Your task to perform on an android device: Add macbook pro 15 inch to the cart on target.com, then select checkout. Image 0: 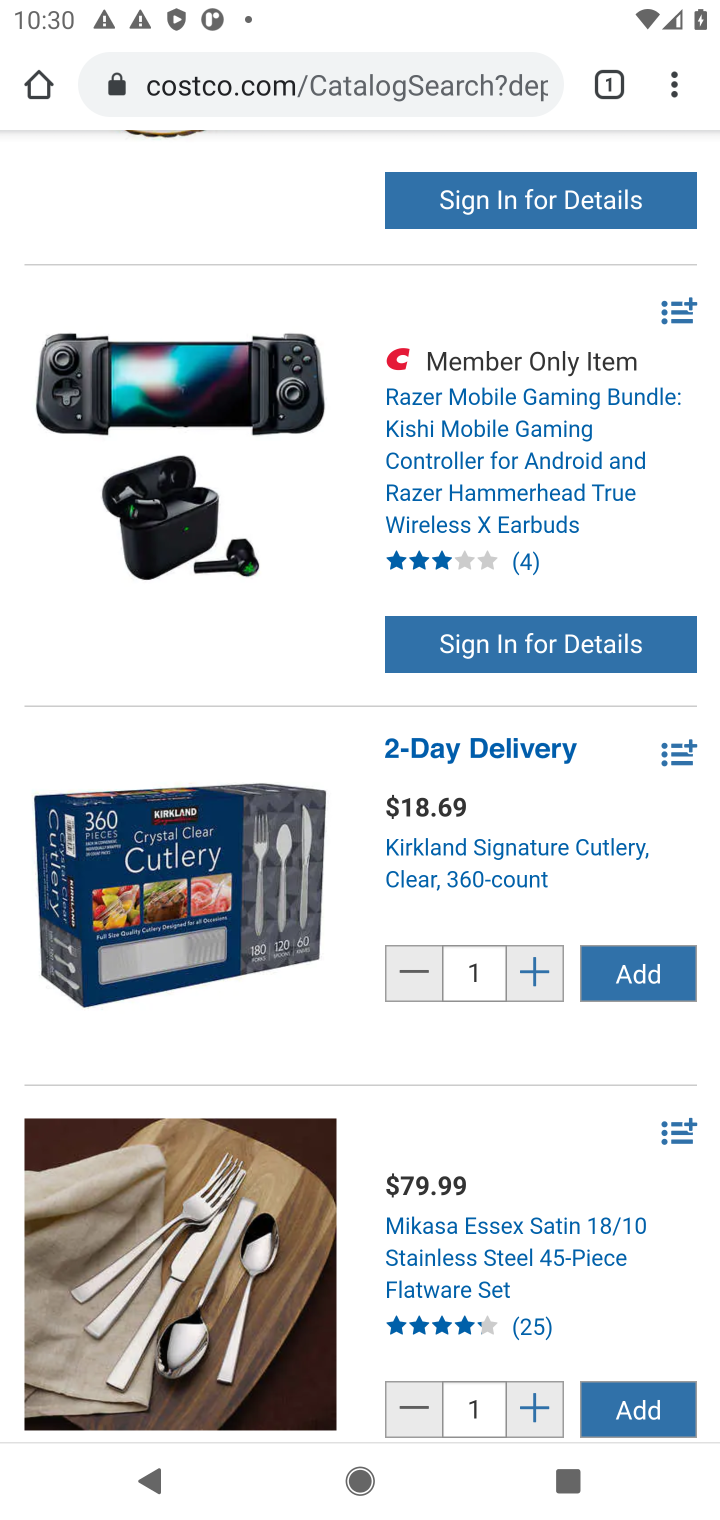
Step 0: press home button
Your task to perform on an android device: Add macbook pro 15 inch to the cart on target.com, then select checkout. Image 1: 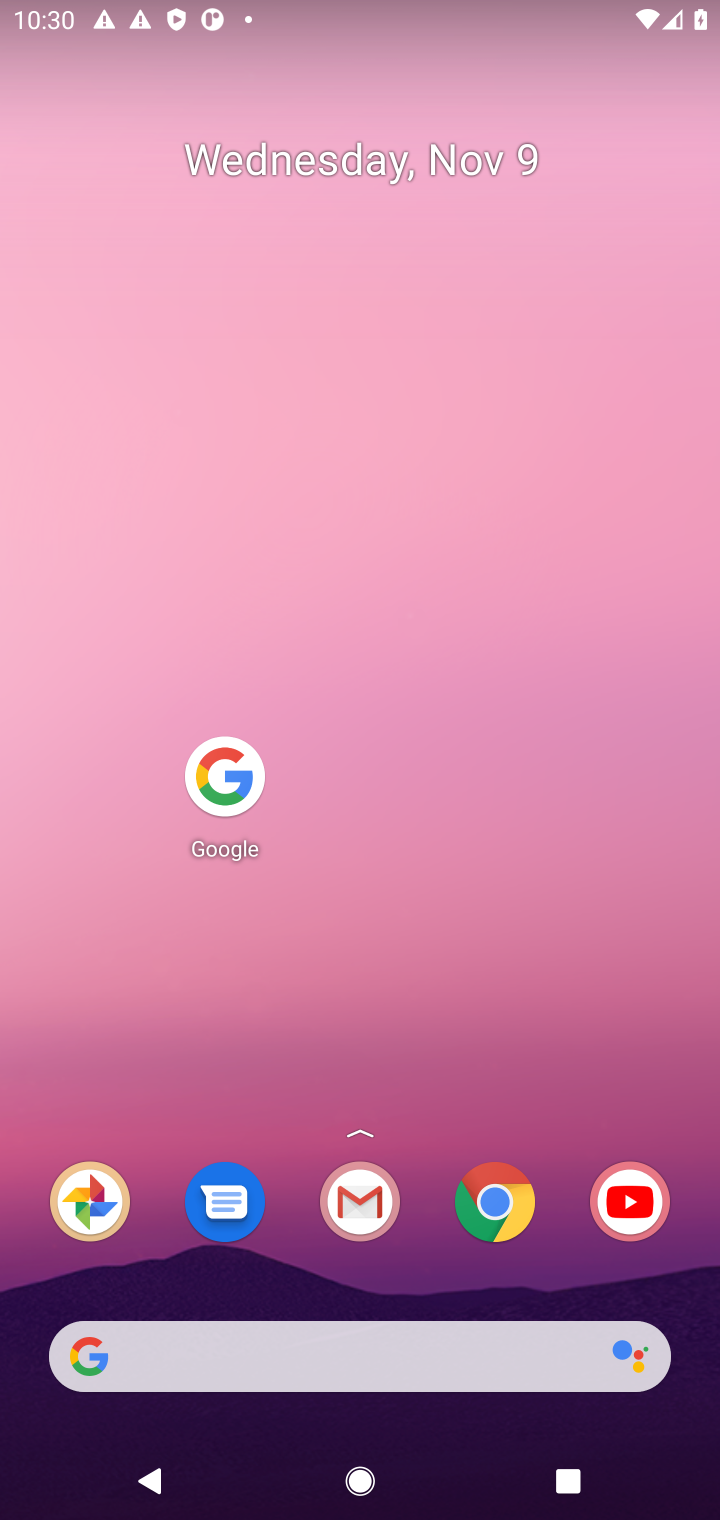
Step 1: click (229, 759)
Your task to perform on an android device: Add macbook pro 15 inch to the cart on target.com, then select checkout. Image 2: 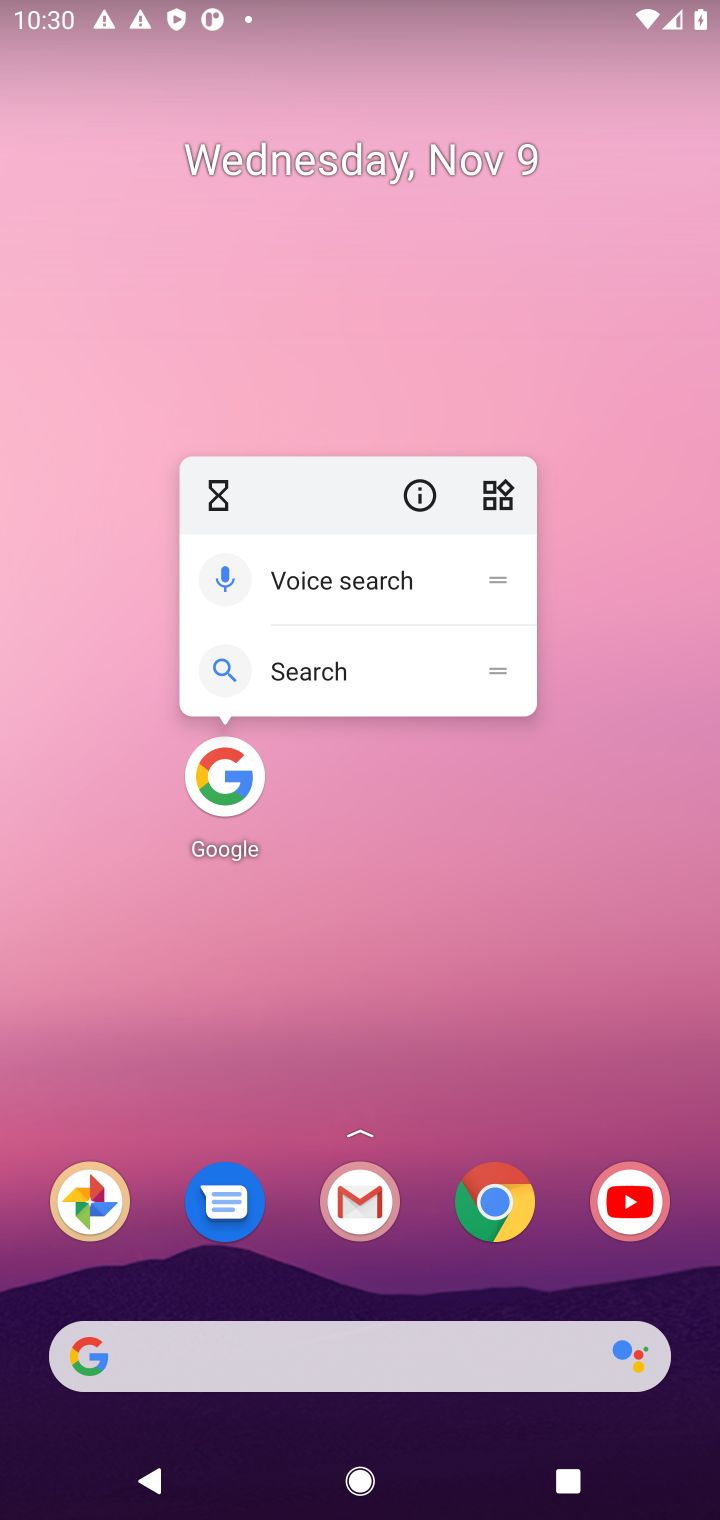
Step 2: click (221, 781)
Your task to perform on an android device: Add macbook pro 15 inch to the cart on target.com, then select checkout. Image 3: 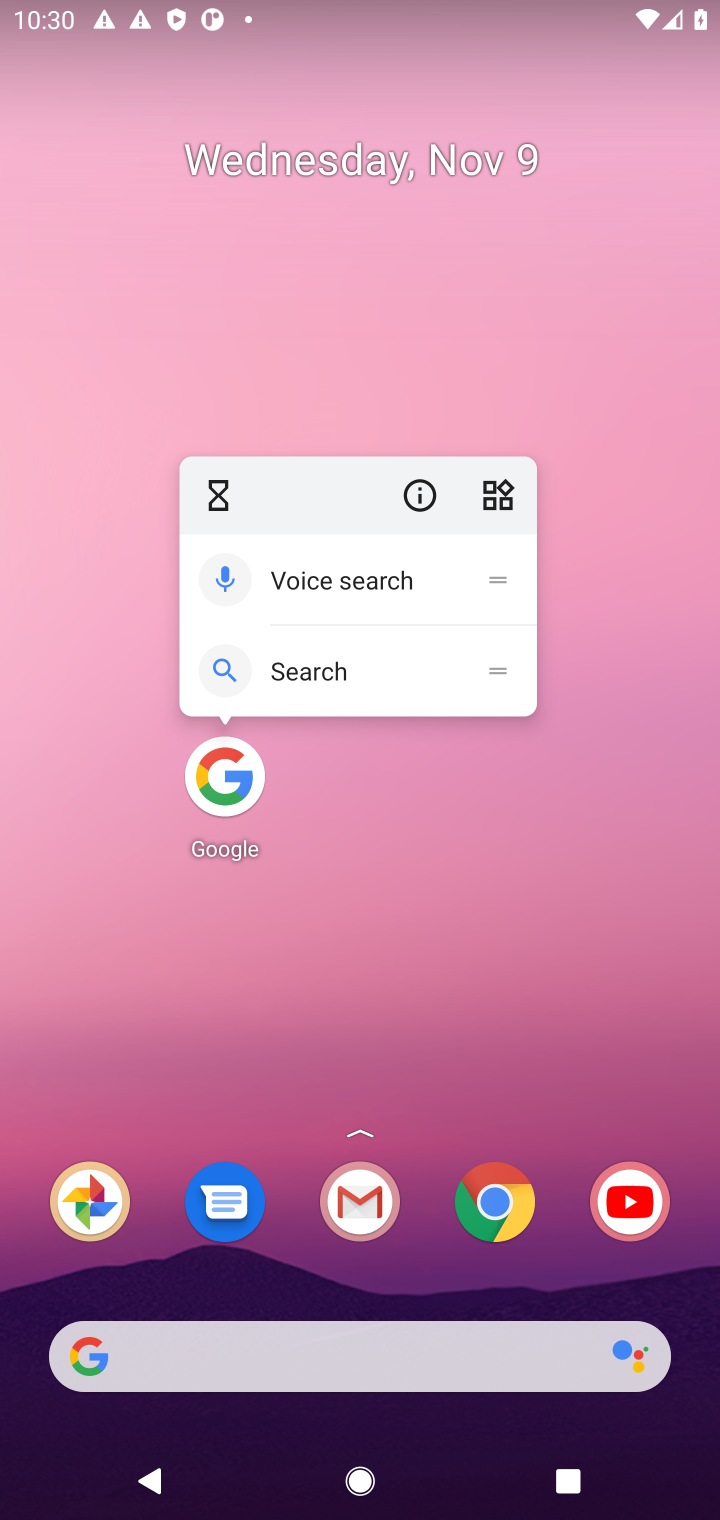
Step 3: click (227, 751)
Your task to perform on an android device: Add macbook pro 15 inch to the cart on target.com, then select checkout. Image 4: 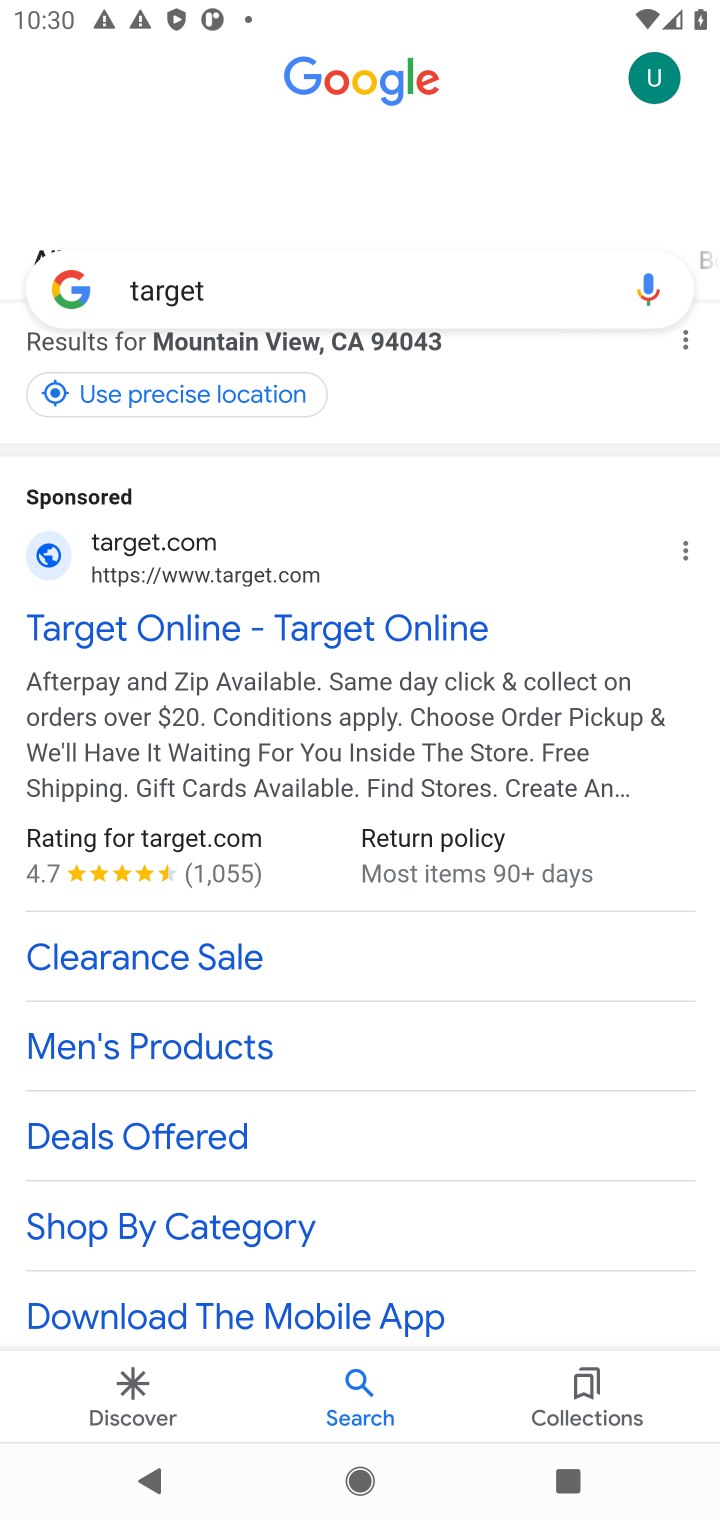
Step 4: click (184, 625)
Your task to perform on an android device: Add macbook pro 15 inch to the cart on target.com, then select checkout. Image 5: 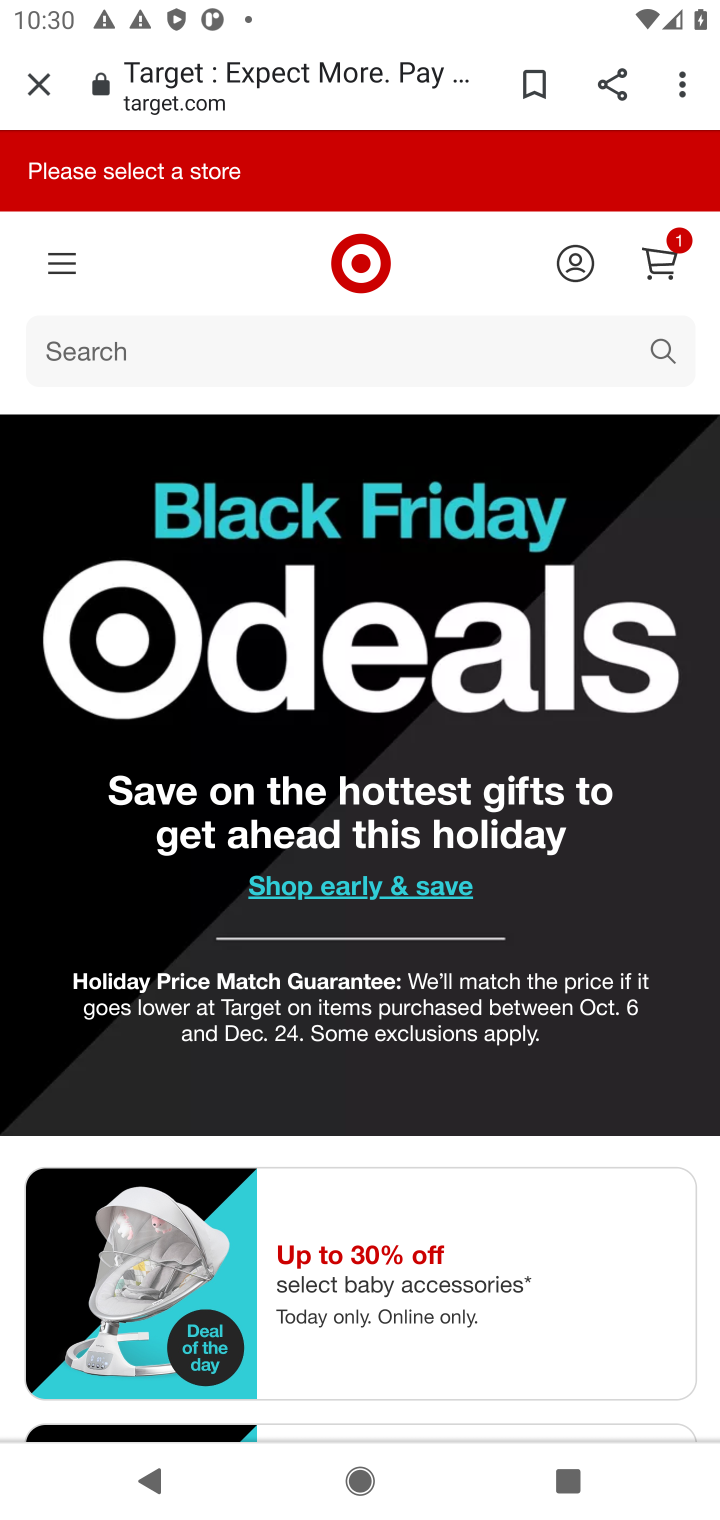
Step 5: click (199, 335)
Your task to perform on an android device: Add macbook pro 15 inch to the cart on target.com, then select checkout. Image 6: 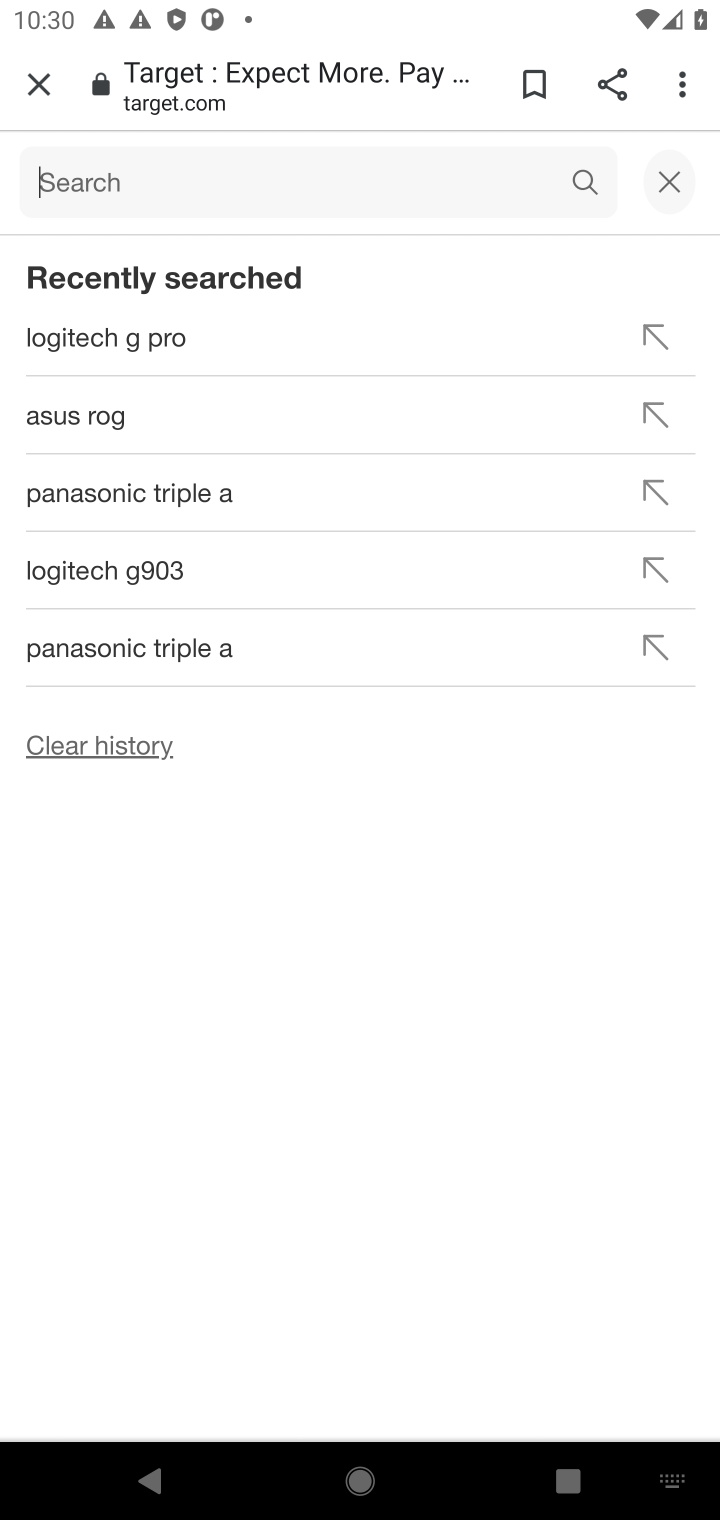
Step 6: type "macbook pro 15 inch"
Your task to perform on an android device: Add macbook pro 15 inch to the cart on target.com, then select checkout. Image 7: 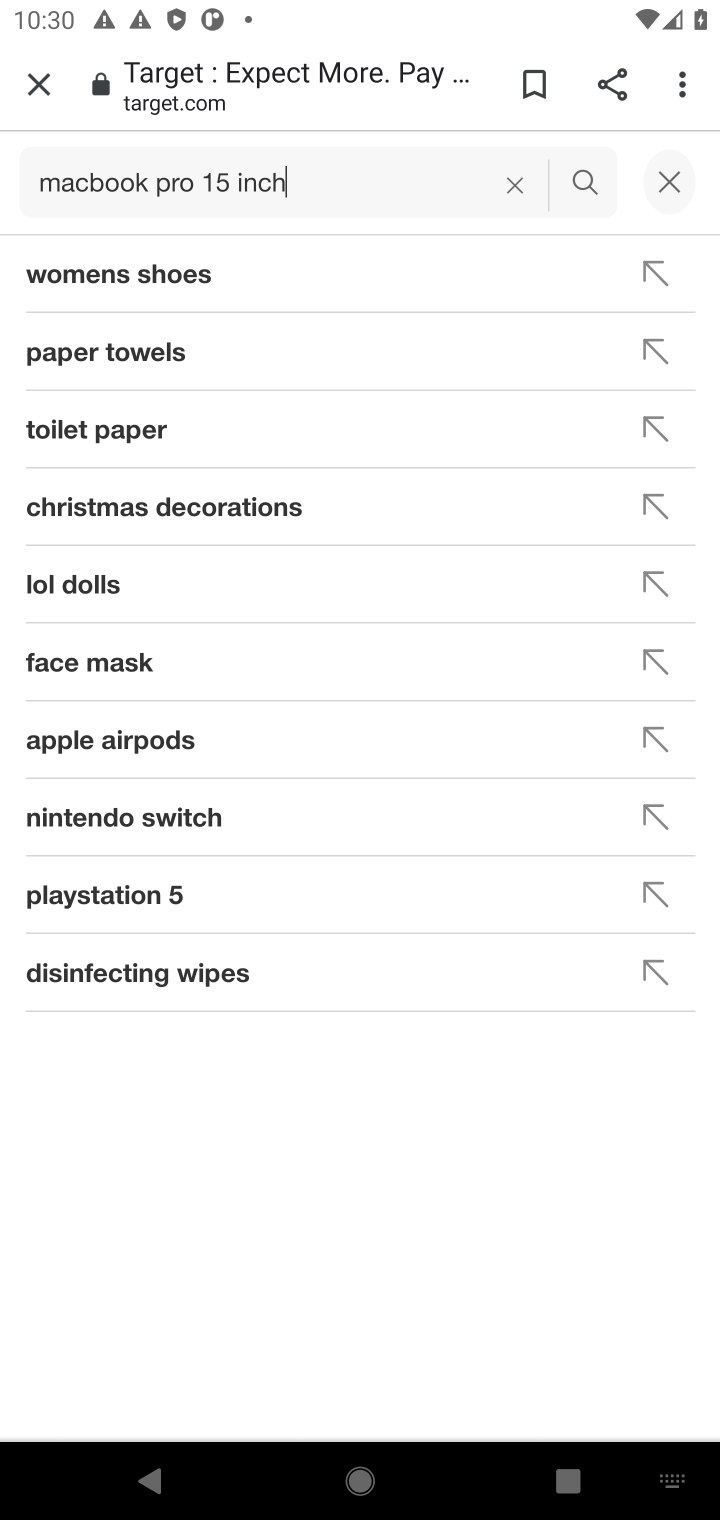
Step 7: press enter
Your task to perform on an android device: Add macbook pro 15 inch to the cart on target.com, then select checkout. Image 8: 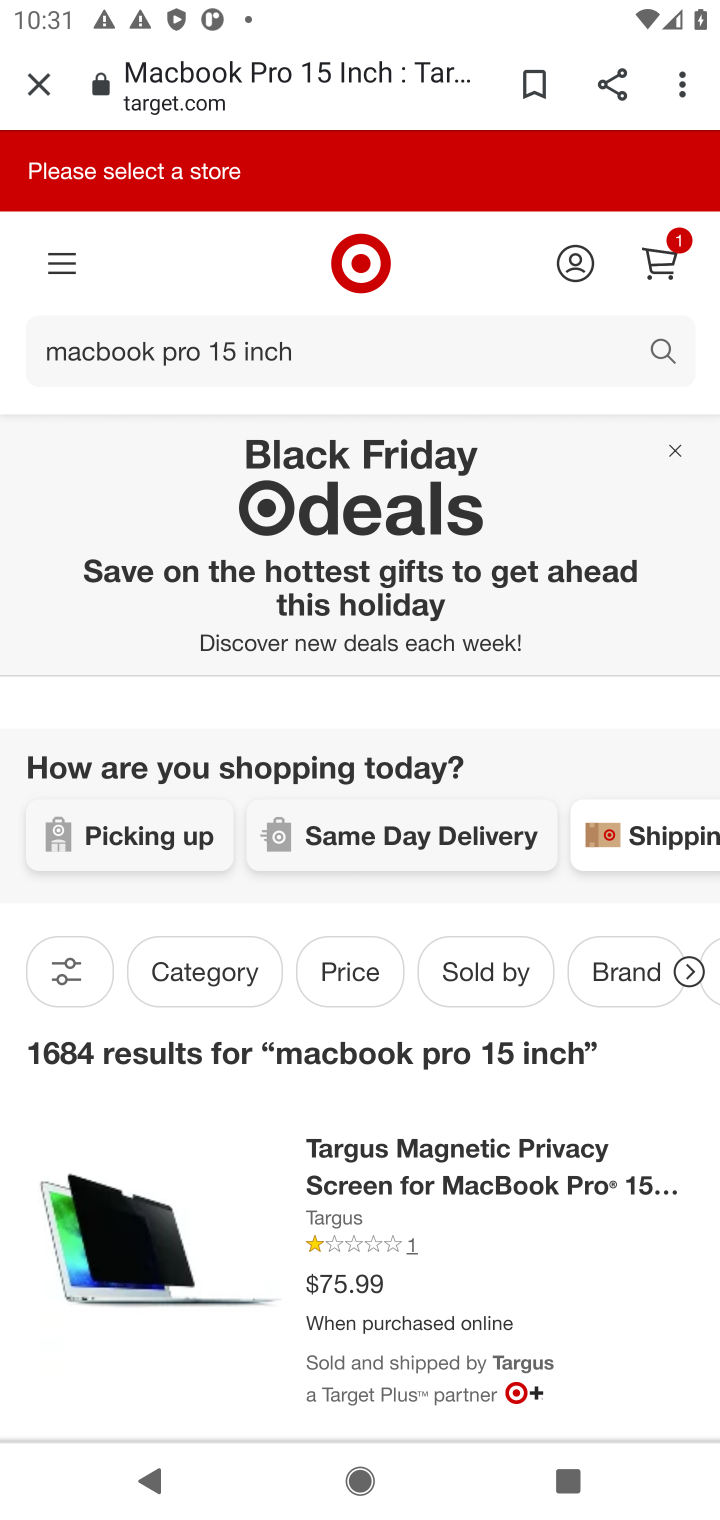
Step 8: drag from (262, 1246) to (481, 800)
Your task to perform on an android device: Add macbook pro 15 inch to the cart on target.com, then select checkout. Image 9: 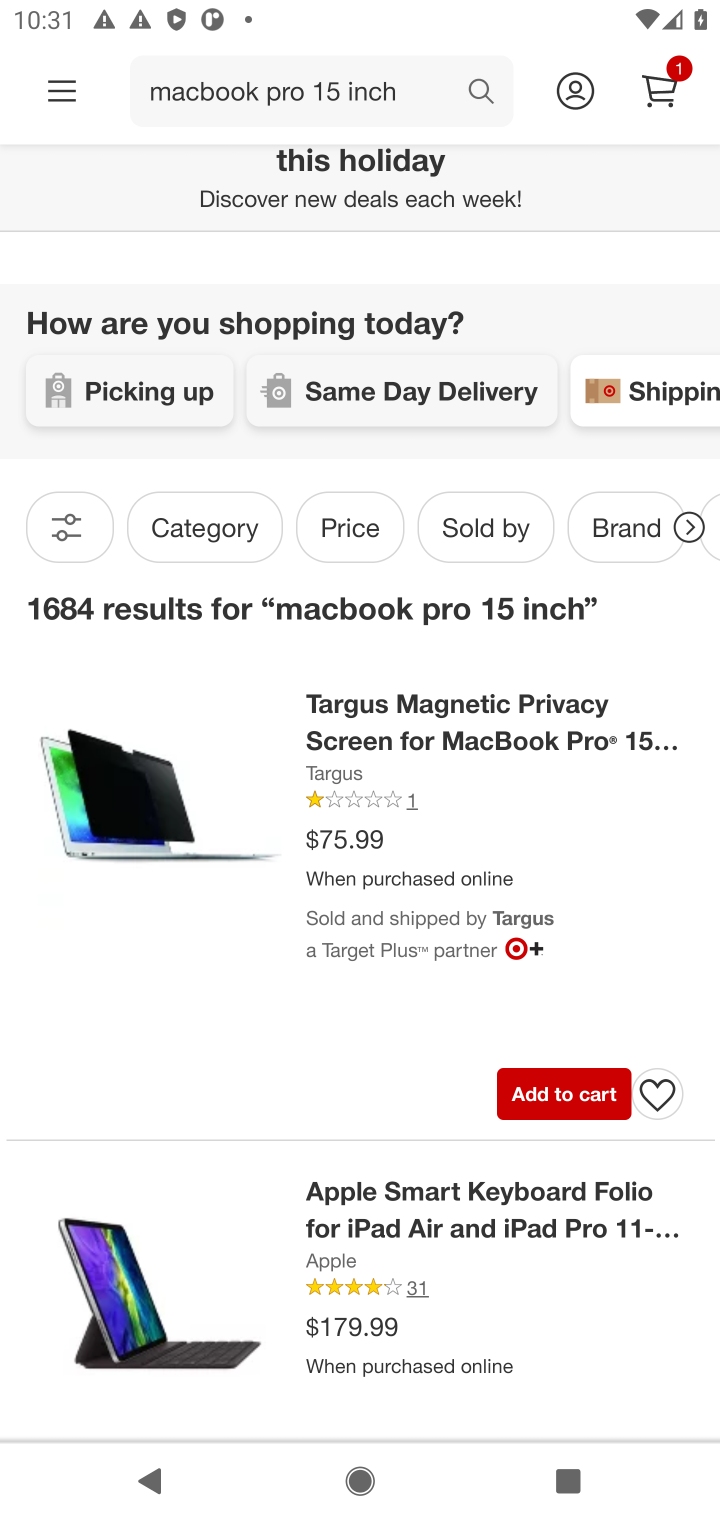
Step 9: click (408, 742)
Your task to perform on an android device: Add macbook pro 15 inch to the cart on target.com, then select checkout. Image 10: 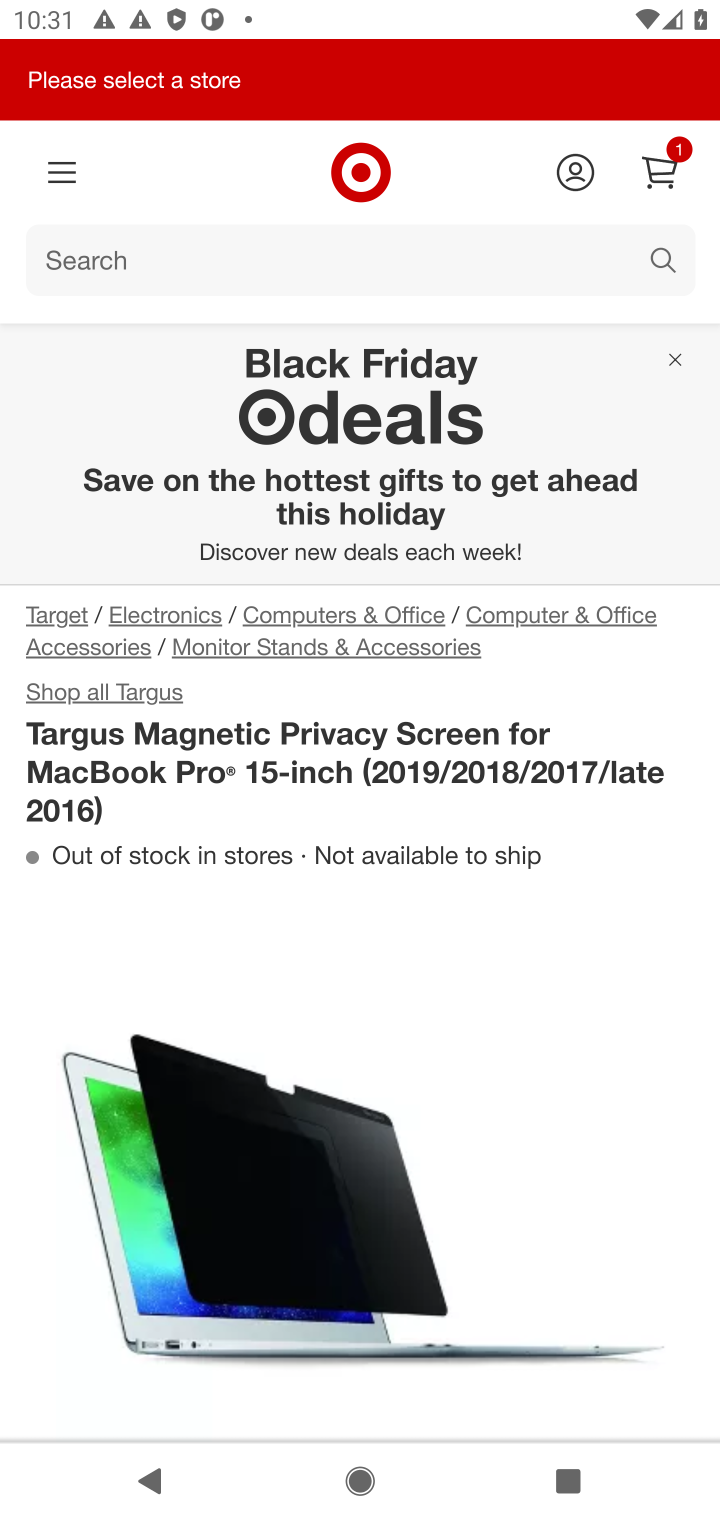
Step 10: drag from (481, 1147) to (594, 590)
Your task to perform on an android device: Add macbook pro 15 inch to the cart on target.com, then select checkout. Image 11: 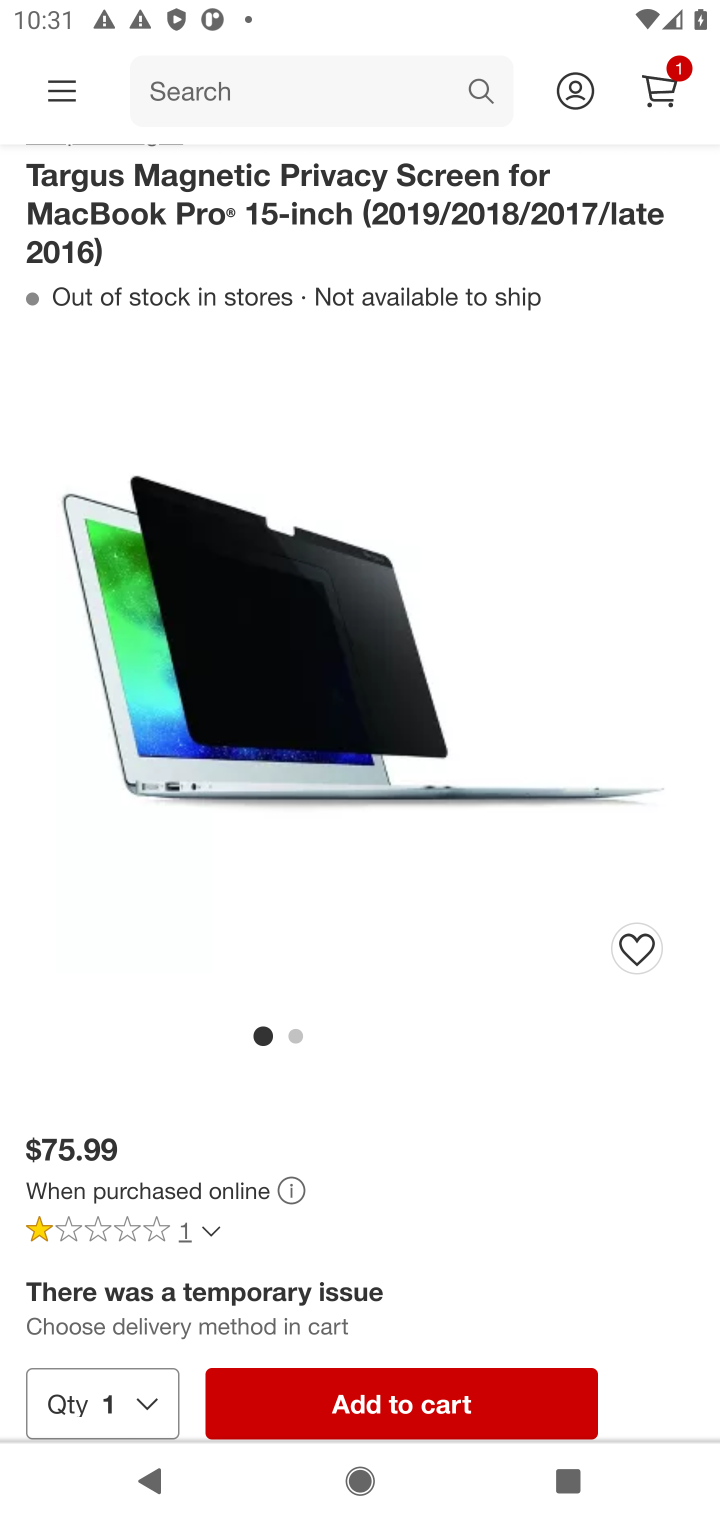
Step 11: click (410, 1406)
Your task to perform on an android device: Add macbook pro 15 inch to the cart on target.com, then select checkout. Image 12: 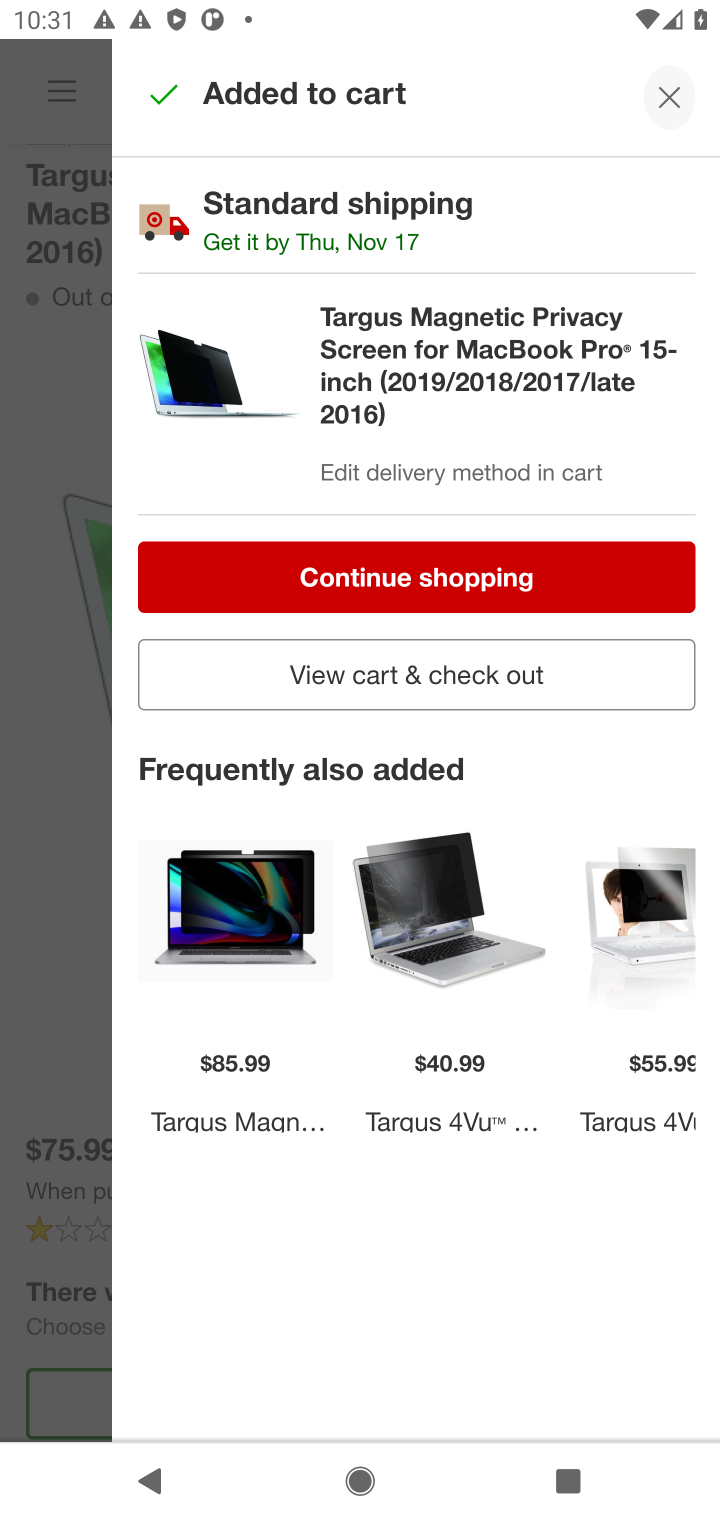
Step 12: click (457, 667)
Your task to perform on an android device: Add macbook pro 15 inch to the cart on target.com, then select checkout. Image 13: 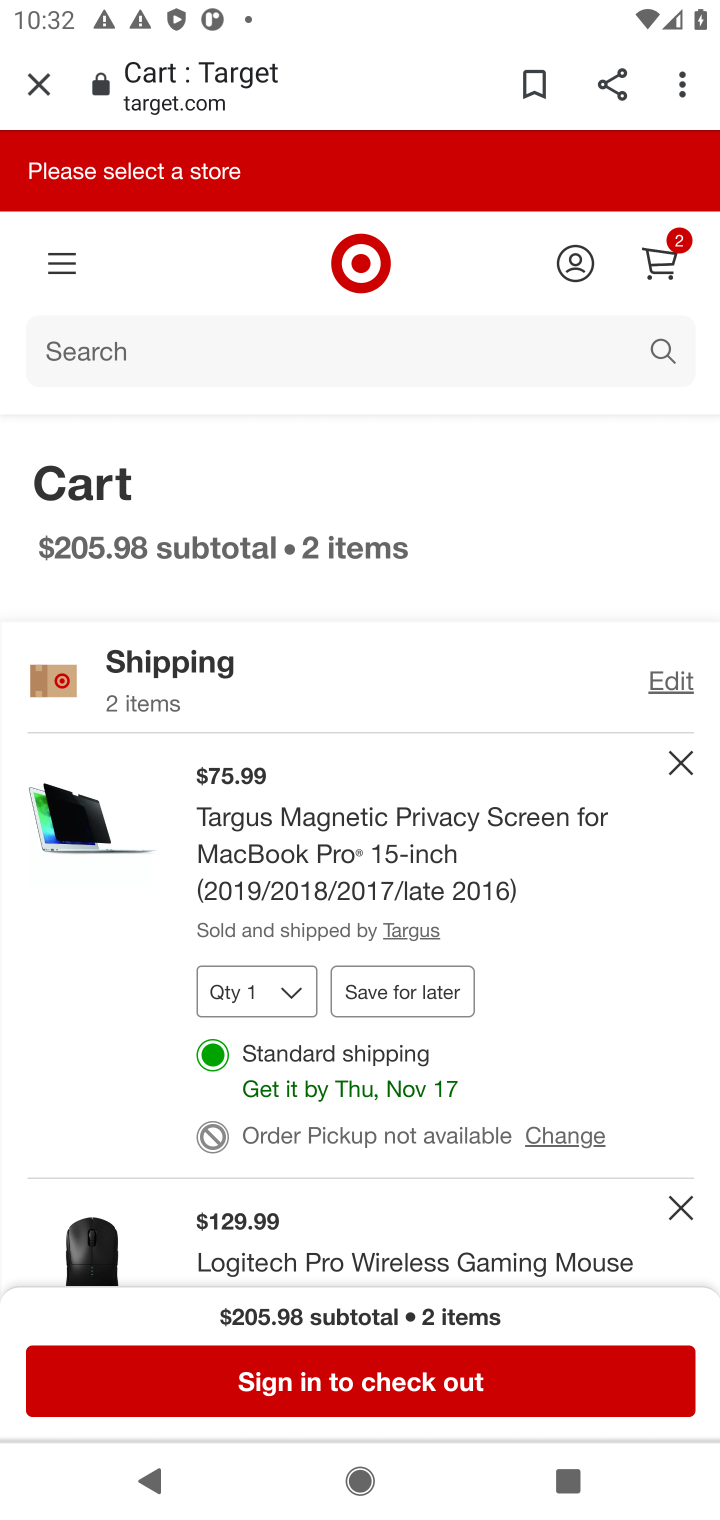
Step 13: click (398, 1375)
Your task to perform on an android device: Add macbook pro 15 inch to the cart on target.com, then select checkout. Image 14: 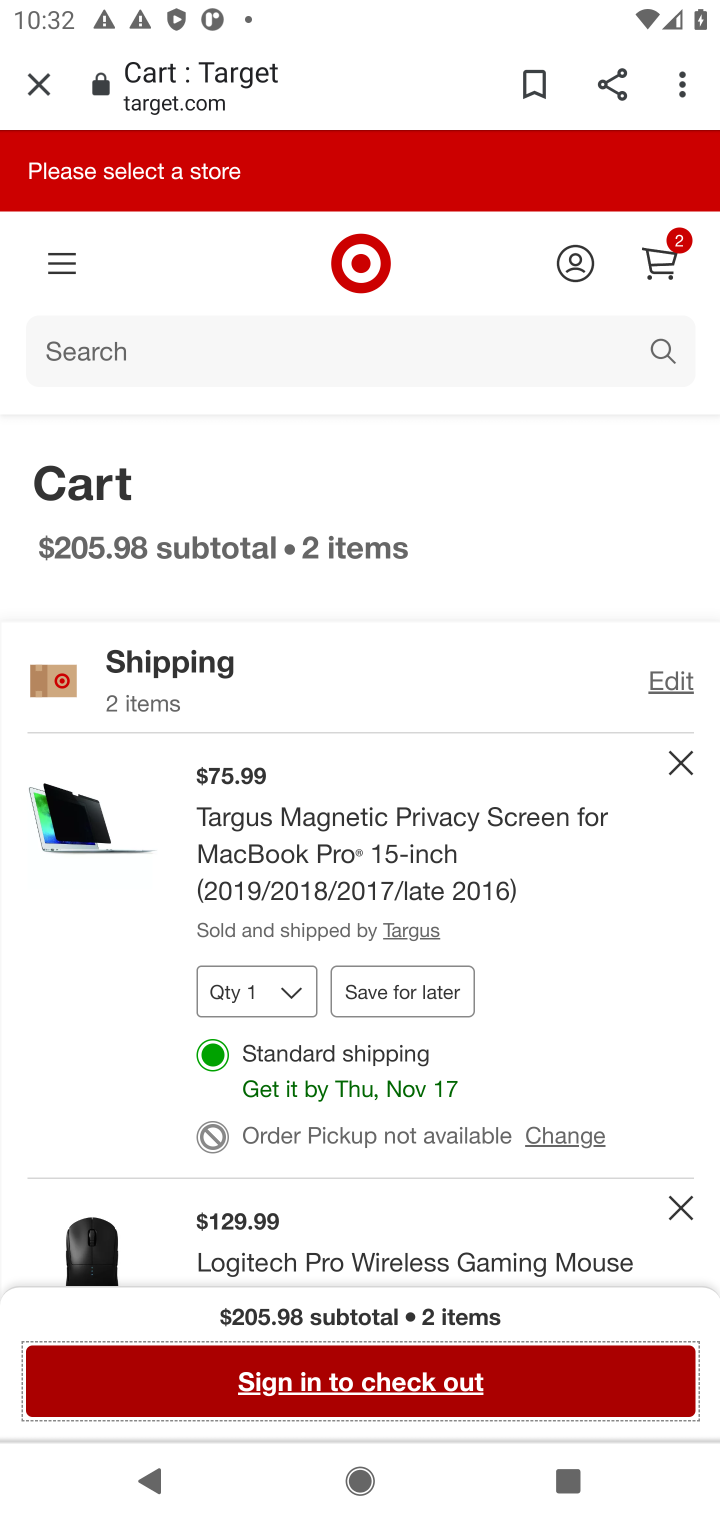
Step 14: click (397, 1387)
Your task to perform on an android device: Add macbook pro 15 inch to the cart on target.com, then select checkout. Image 15: 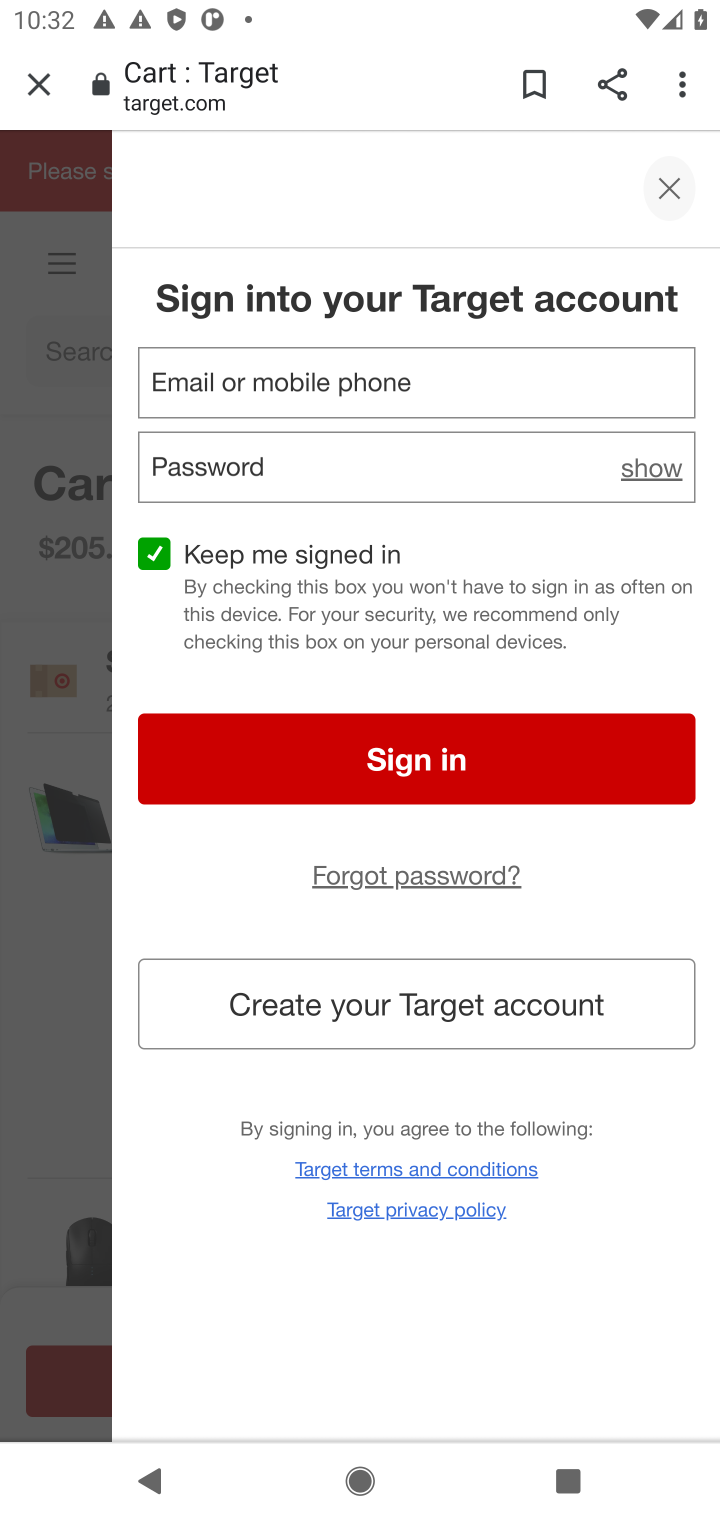
Step 15: task complete